Your task to perform on an android device: Open Reddit.com Image 0: 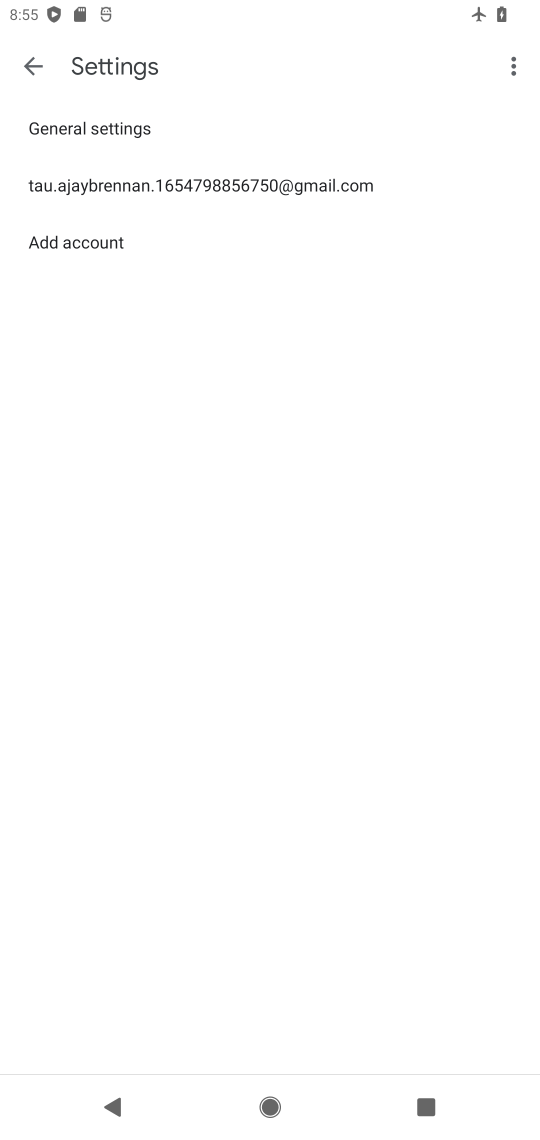
Step 0: press home button
Your task to perform on an android device: Open Reddit.com Image 1: 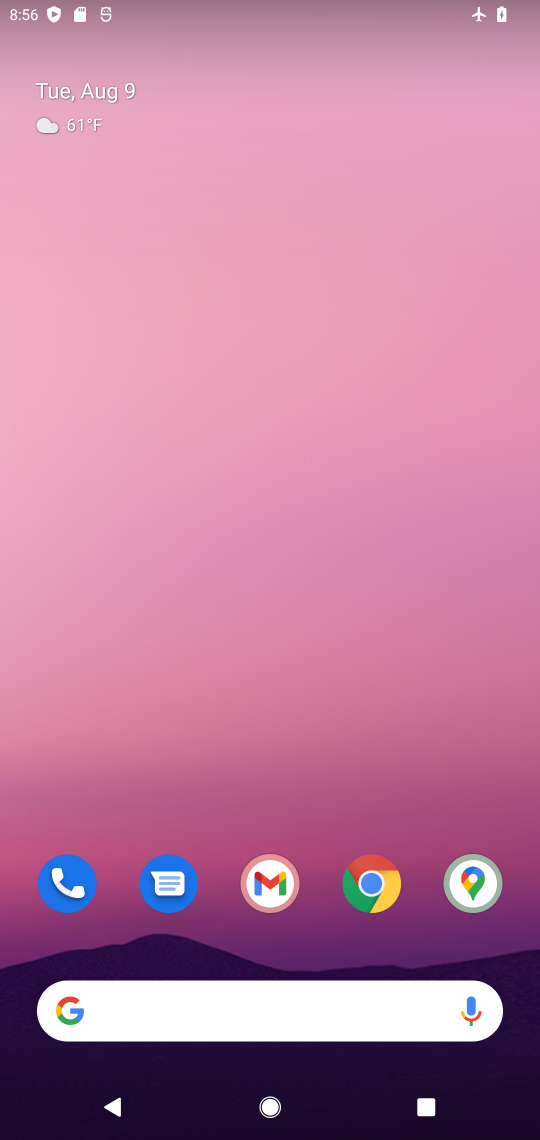
Step 1: drag from (275, 962) to (168, 174)
Your task to perform on an android device: Open Reddit.com Image 2: 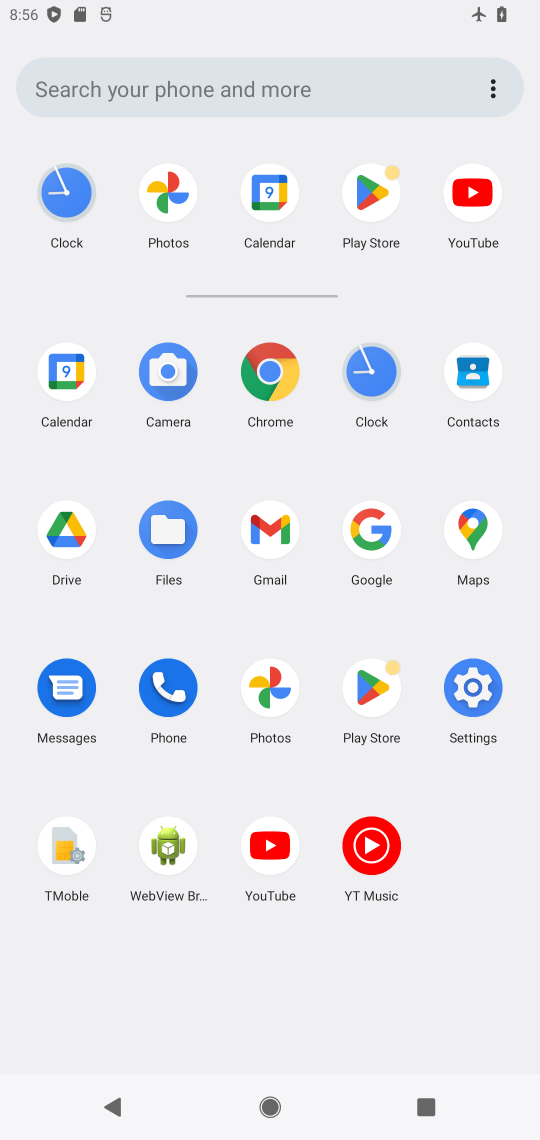
Step 2: click (281, 369)
Your task to perform on an android device: Open Reddit.com Image 3: 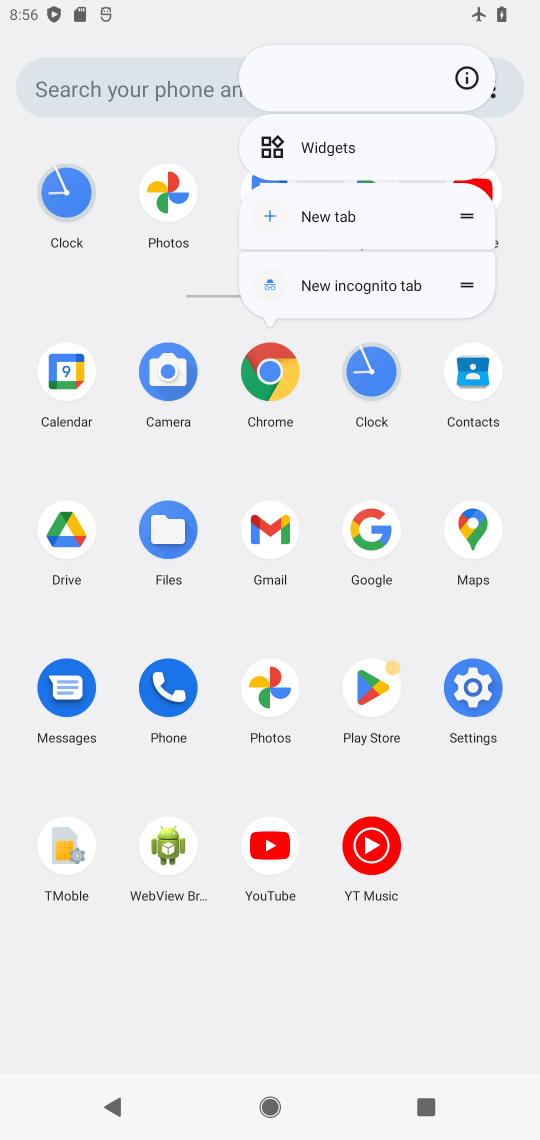
Step 3: click (275, 368)
Your task to perform on an android device: Open Reddit.com Image 4: 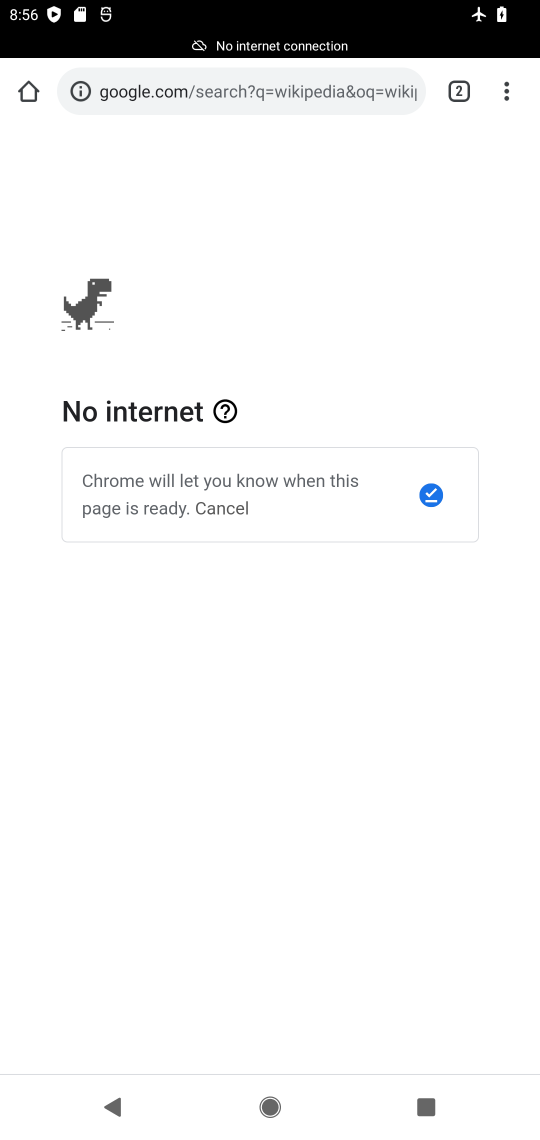
Step 4: click (213, 96)
Your task to perform on an android device: Open Reddit.com Image 5: 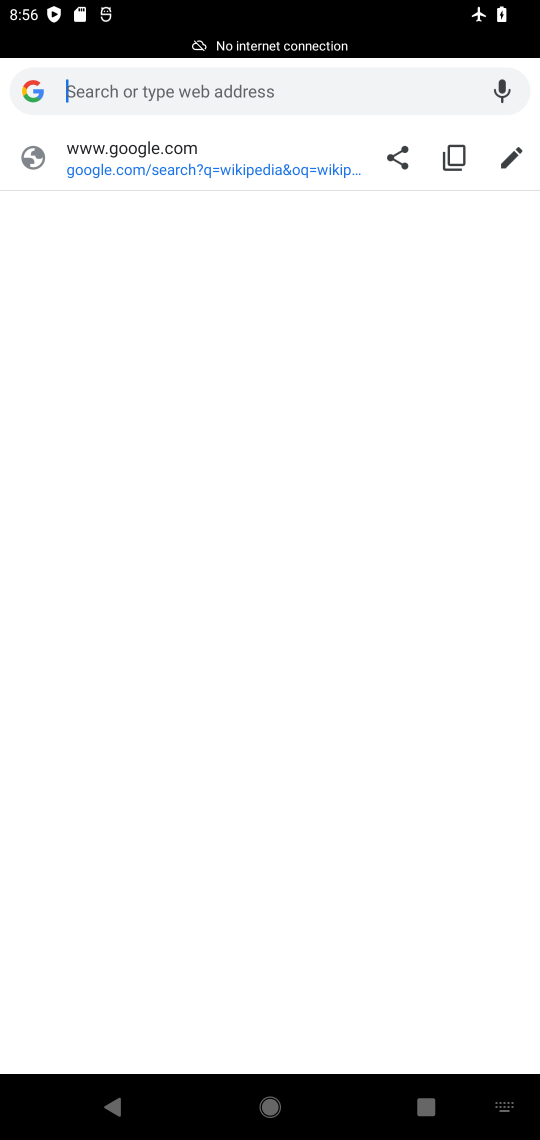
Step 5: type "redidit.com"
Your task to perform on an android device: Open Reddit.com Image 6: 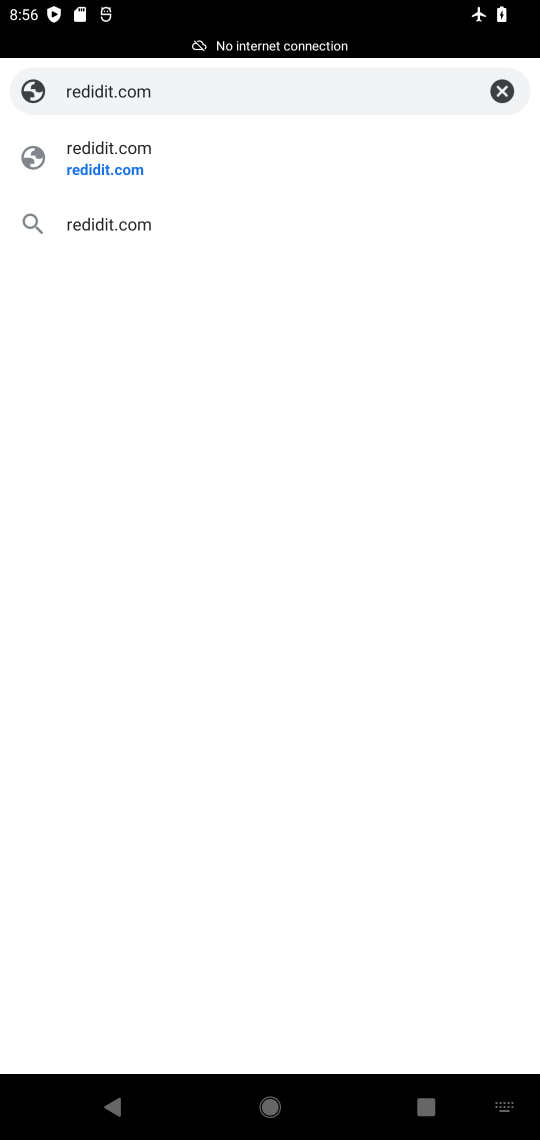
Step 6: click (75, 167)
Your task to perform on an android device: Open Reddit.com Image 7: 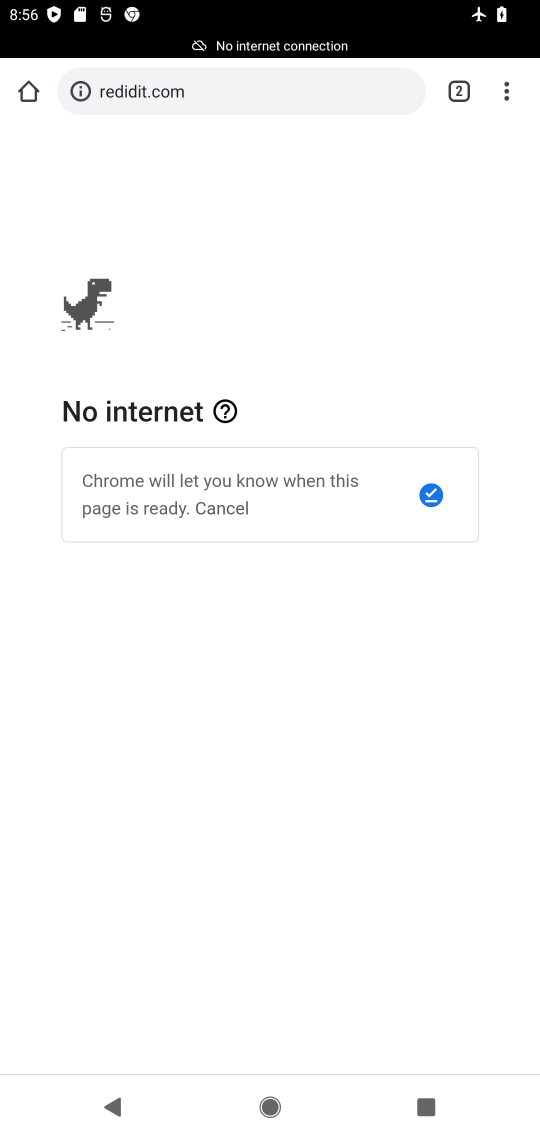
Step 7: task complete